Your task to perform on an android device: turn on showing notifications on the lock screen Image 0: 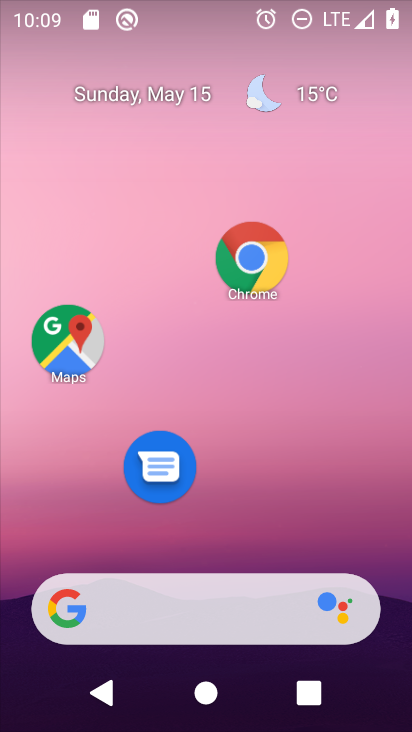
Step 0: drag from (220, 539) to (261, 74)
Your task to perform on an android device: turn on showing notifications on the lock screen Image 1: 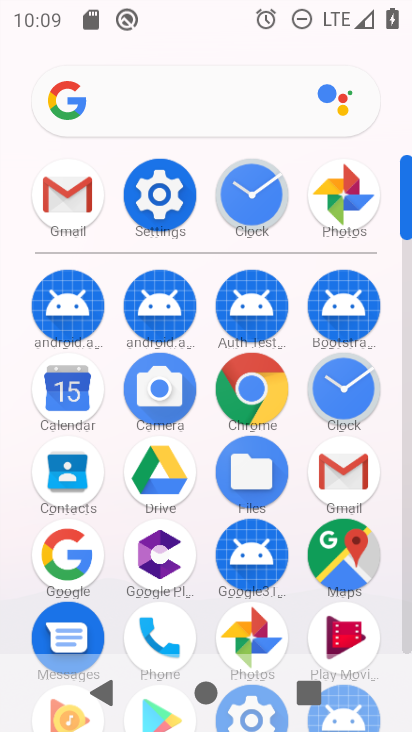
Step 1: click (168, 202)
Your task to perform on an android device: turn on showing notifications on the lock screen Image 2: 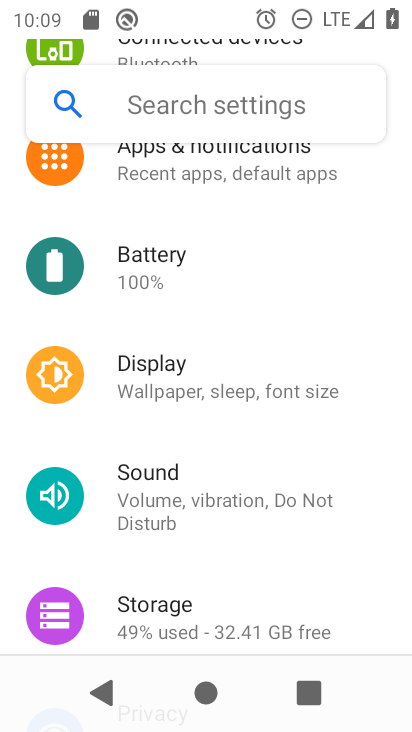
Step 2: click (193, 185)
Your task to perform on an android device: turn on showing notifications on the lock screen Image 3: 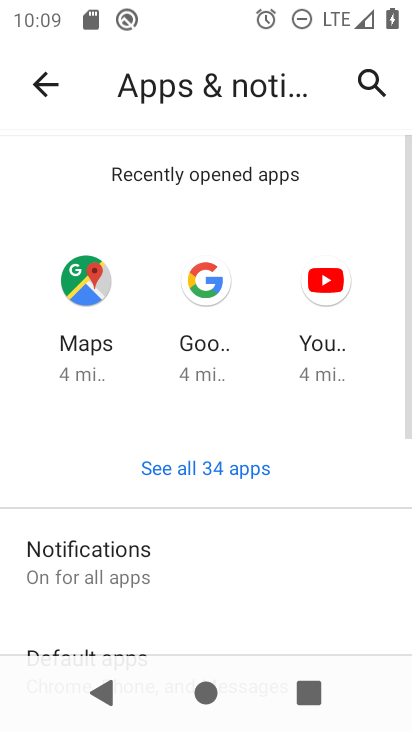
Step 3: click (156, 582)
Your task to perform on an android device: turn on showing notifications on the lock screen Image 4: 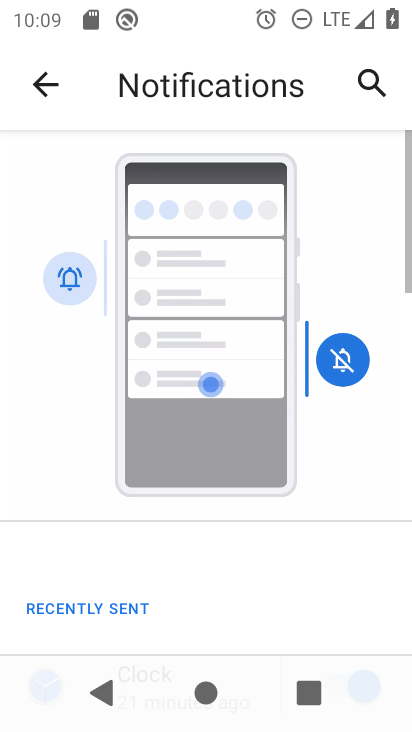
Step 4: click (194, 195)
Your task to perform on an android device: turn on showing notifications on the lock screen Image 5: 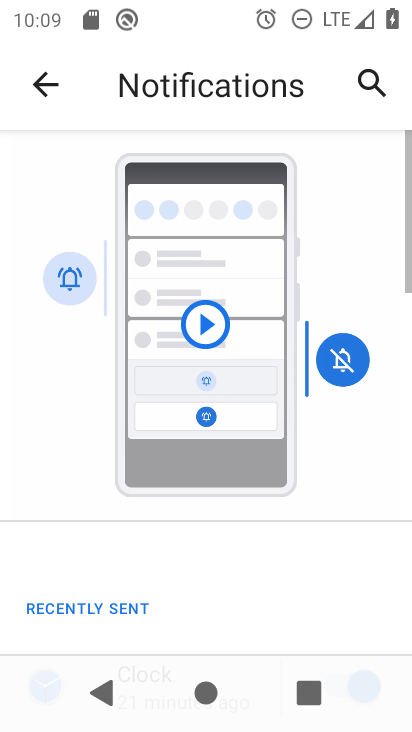
Step 5: drag from (248, 597) to (271, 173)
Your task to perform on an android device: turn on showing notifications on the lock screen Image 6: 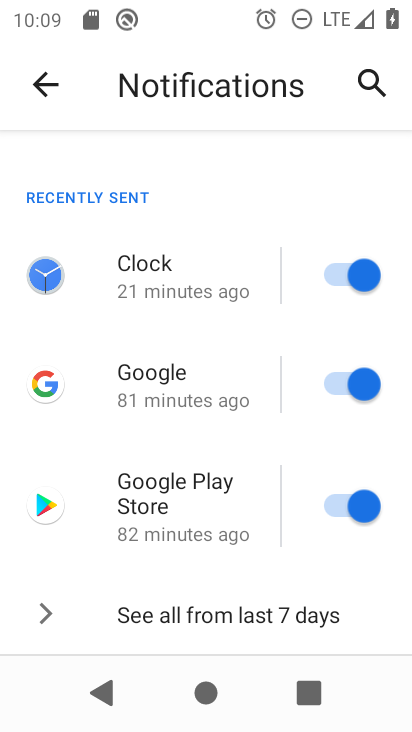
Step 6: drag from (192, 586) to (262, 16)
Your task to perform on an android device: turn on showing notifications on the lock screen Image 7: 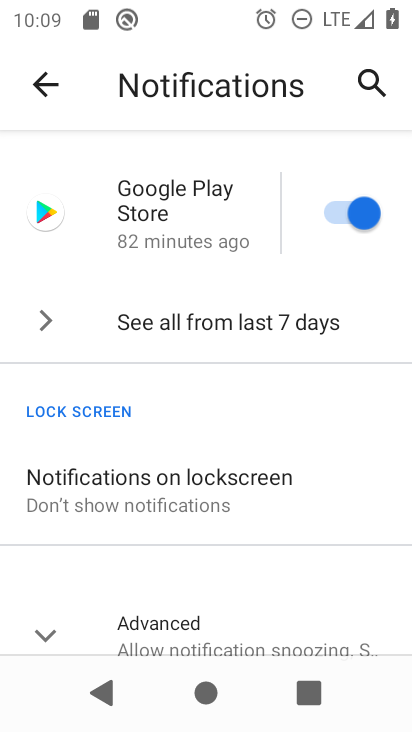
Step 7: click (206, 496)
Your task to perform on an android device: turn on showing notifications on the lock screen Image 8: 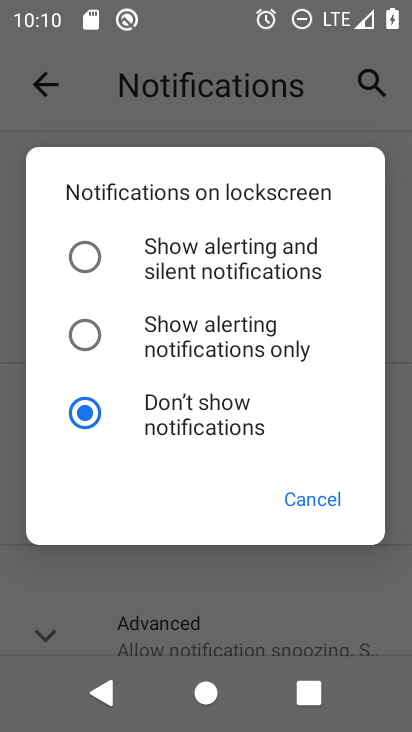
Step 8: click (92, 262)
Your task to perform on an android device: turn on showing notifications on the lock screen Image 9: 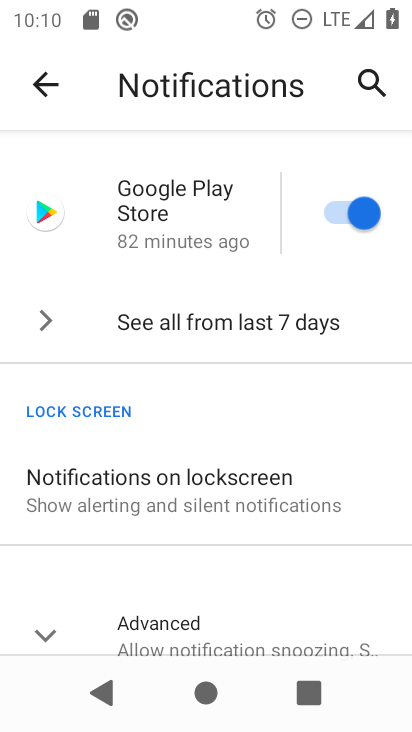
Step 9: task complete